Your task to perform on an android device: toggle airplane mode Image 0: 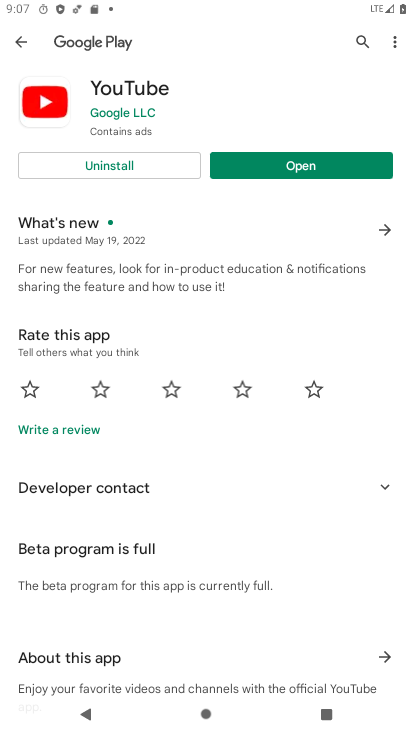
Step 0: press home button
Your task to perform on an android device: toggle airplane mode Image 1: 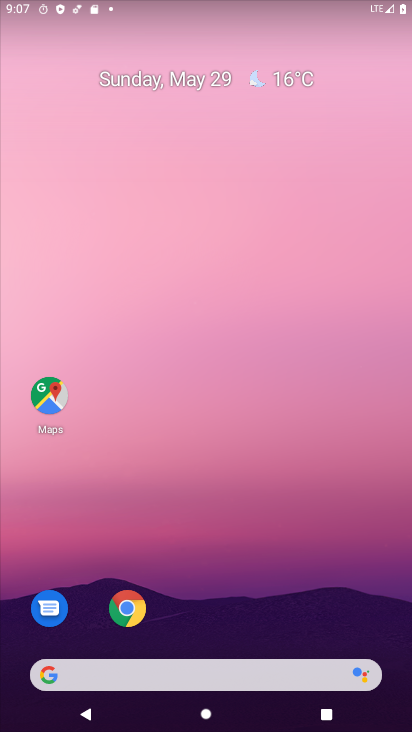
Step 1: drag from (236, 606) to (235, 2)
Your task to perform on an android device: toggle airplane mode Image 2: 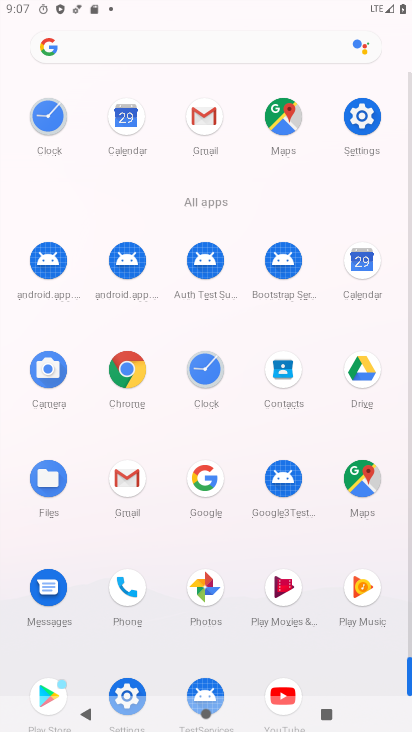
Step 2: click (353, 140)
Your task to perform on an android device: toggle airplane mode Image 3: 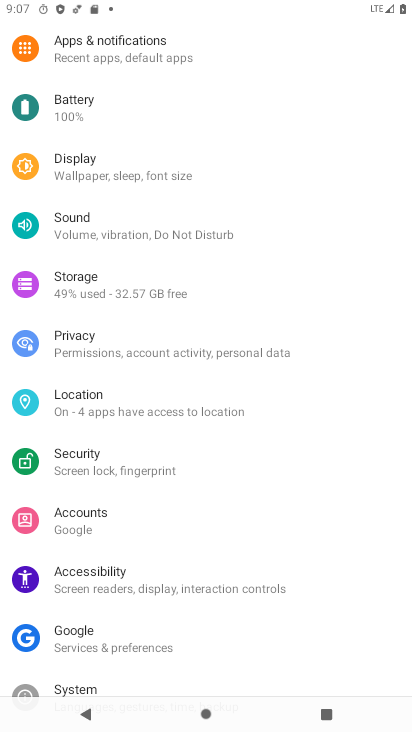
Step 3: drag from (139, 67) to (105, 625)
Your task to perform on an android device: toggle airplane mode Image 4: 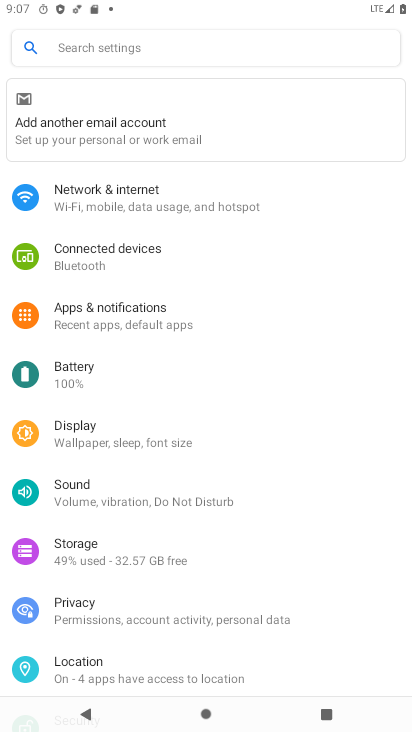
Step 4: click (108, 193)
Your task to perform on an android device: toggle airplane mode Image 5: 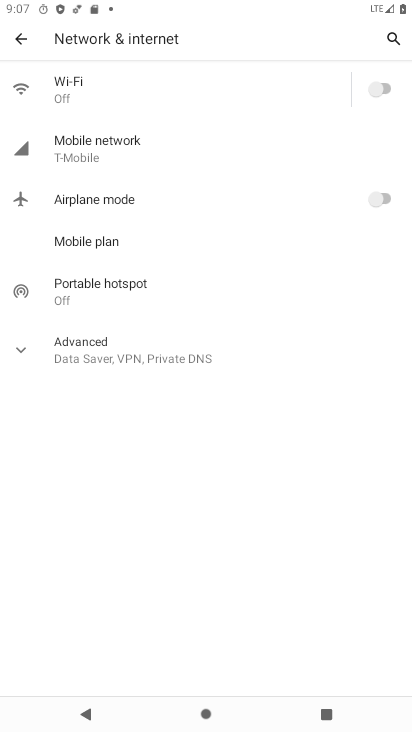
Step 5: click (399, 186)
Your task to perform on an android device: toggle airplane mode Image 6: 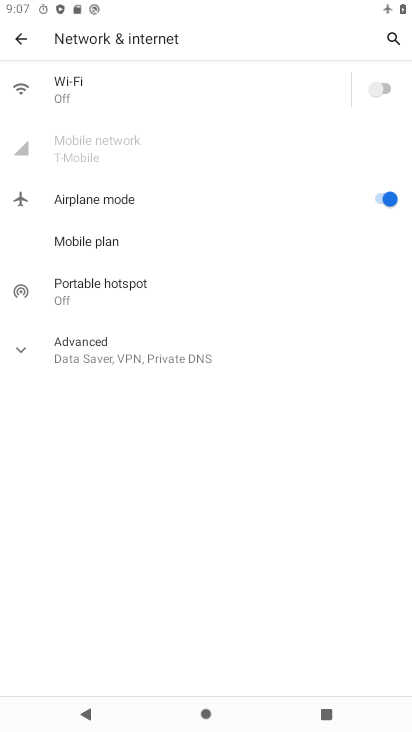
Step 6: task complete